Your task to perform on an android device: check android version Image 0: 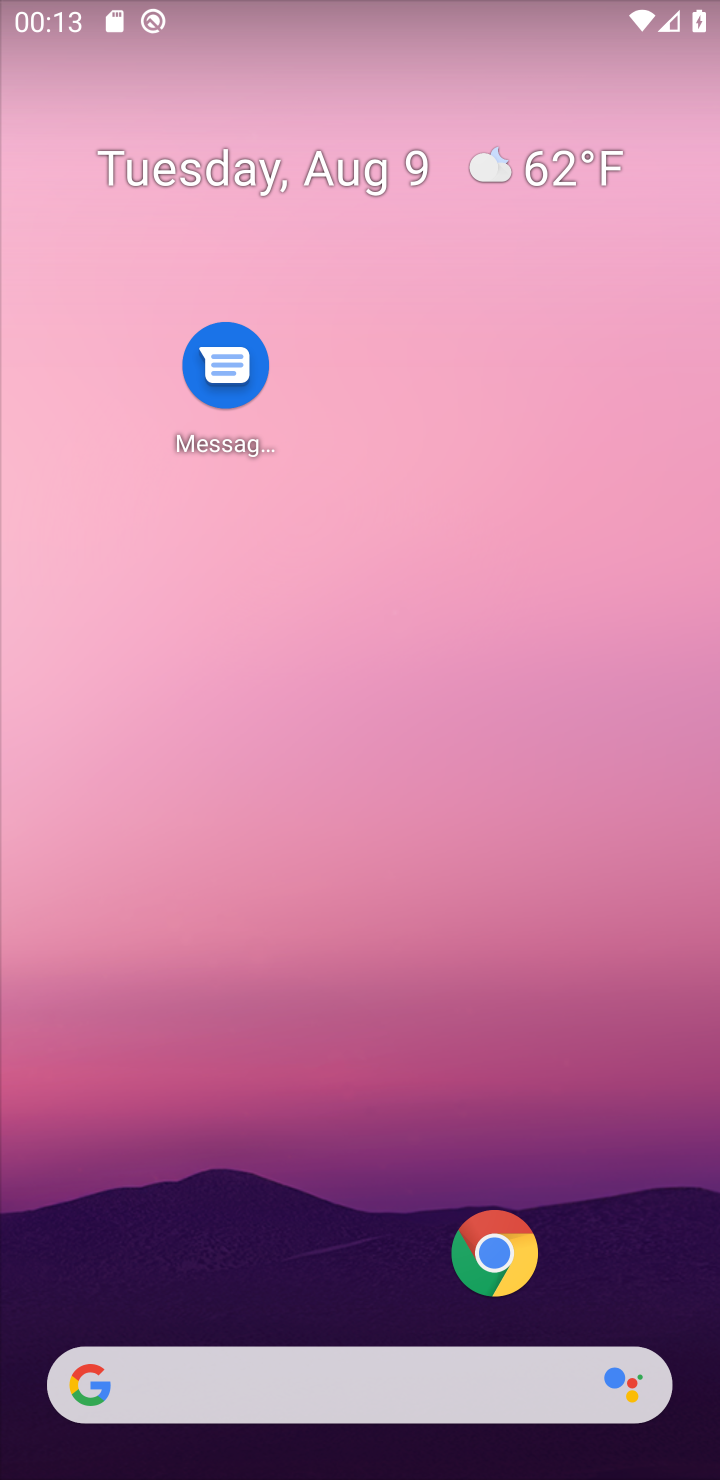
Step 0: drag from (474, 1220) to (485, 93)
Your task to perform on an android device: check android version Image 1: 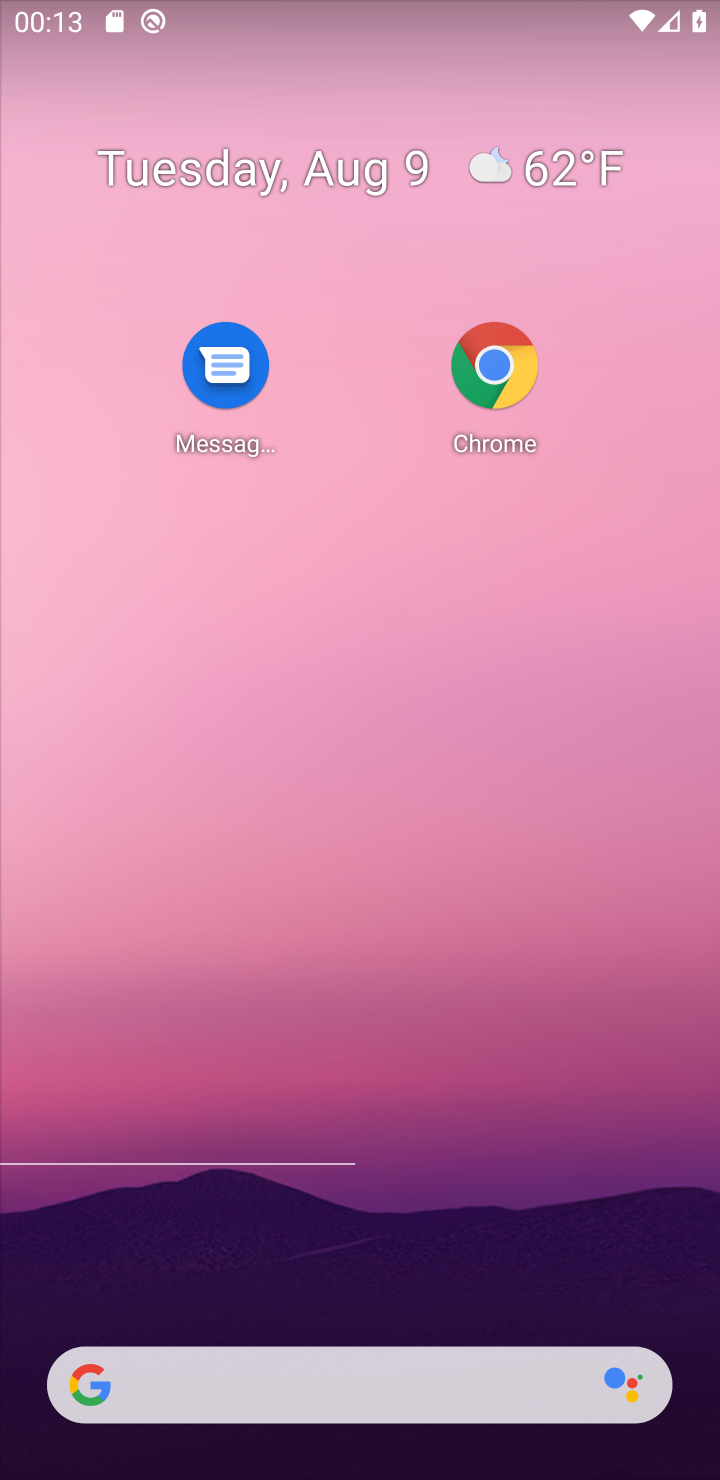
Step 1: drag from (330, 716) to (427, 64)
Your task to perform on an android device: check android version Image 2: 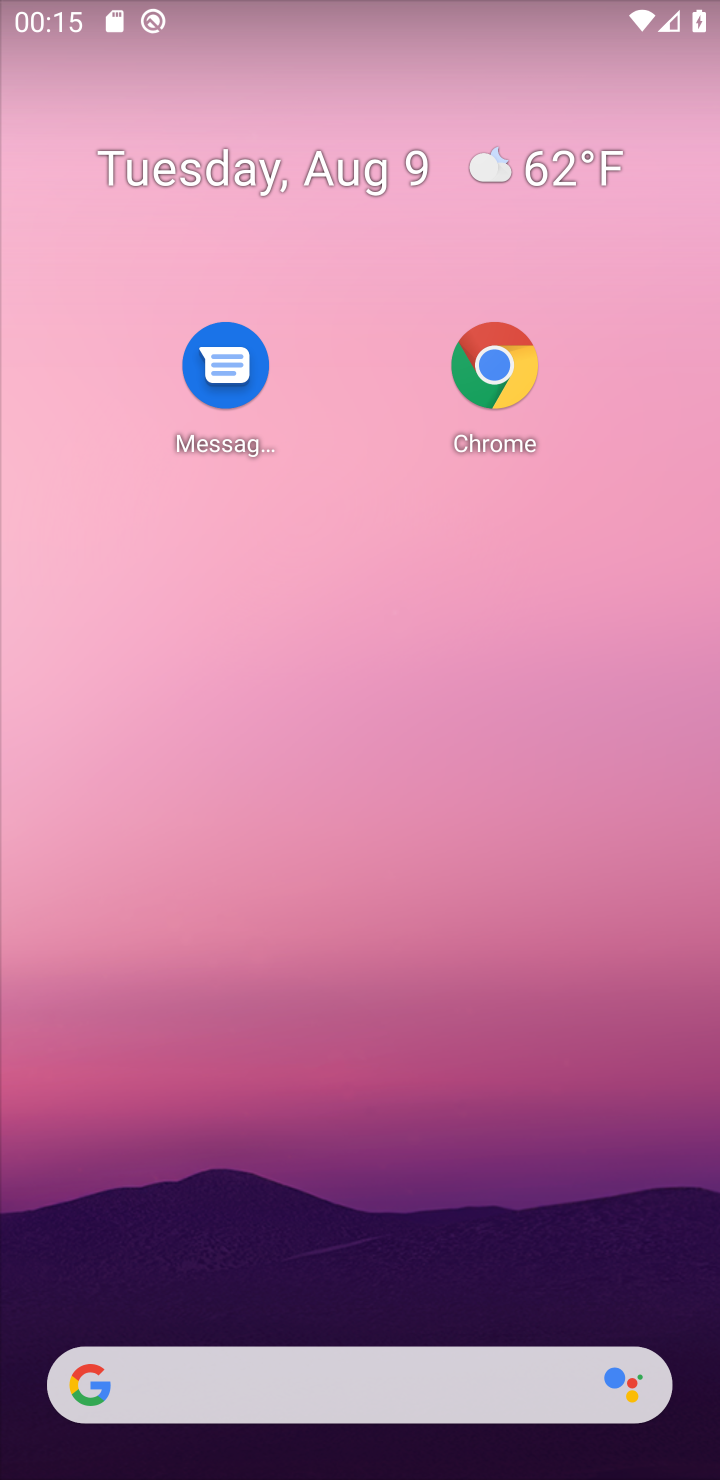
Step 2: drag from (262, 1405) to (570, 169)
Your task to perform on an android device: check android version Image 3: 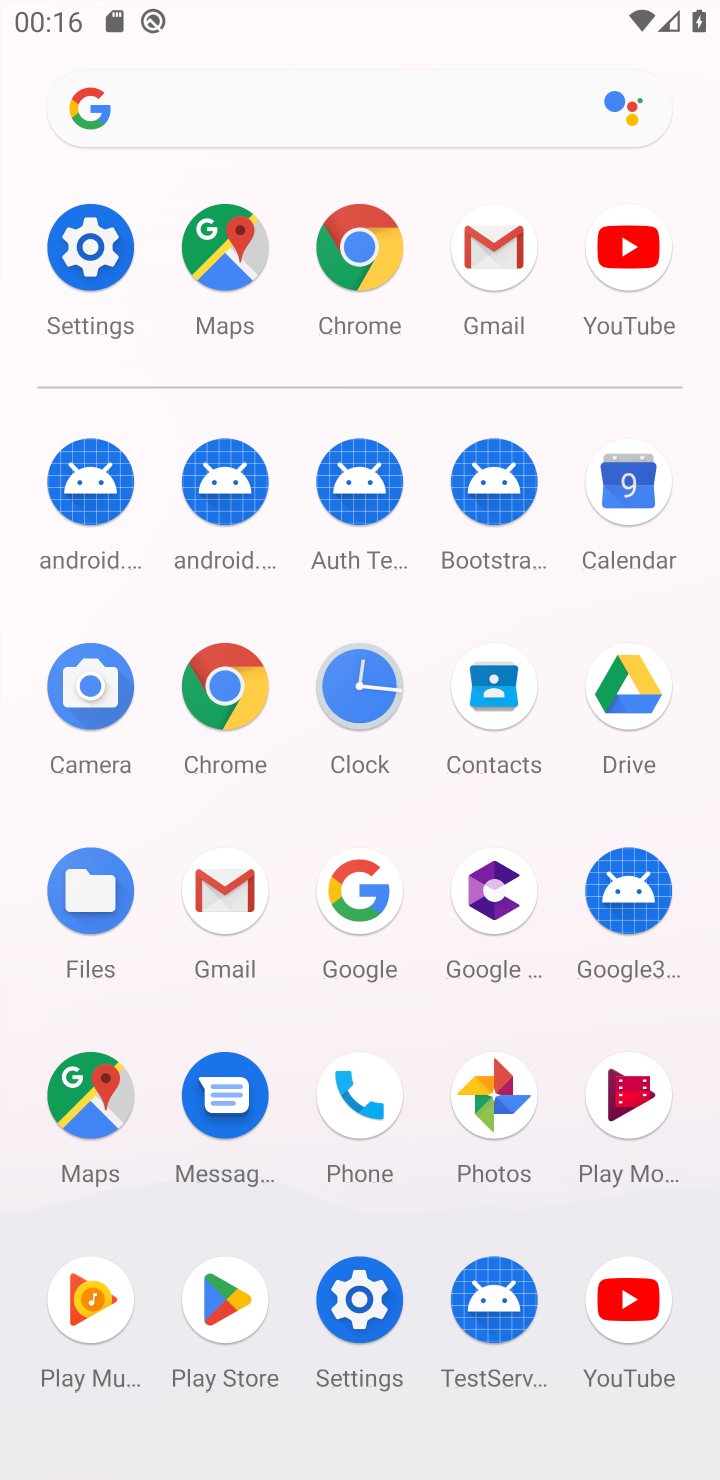
Step 3: click (81, 250)
Your task to perform on an android device: check android version Image 4: 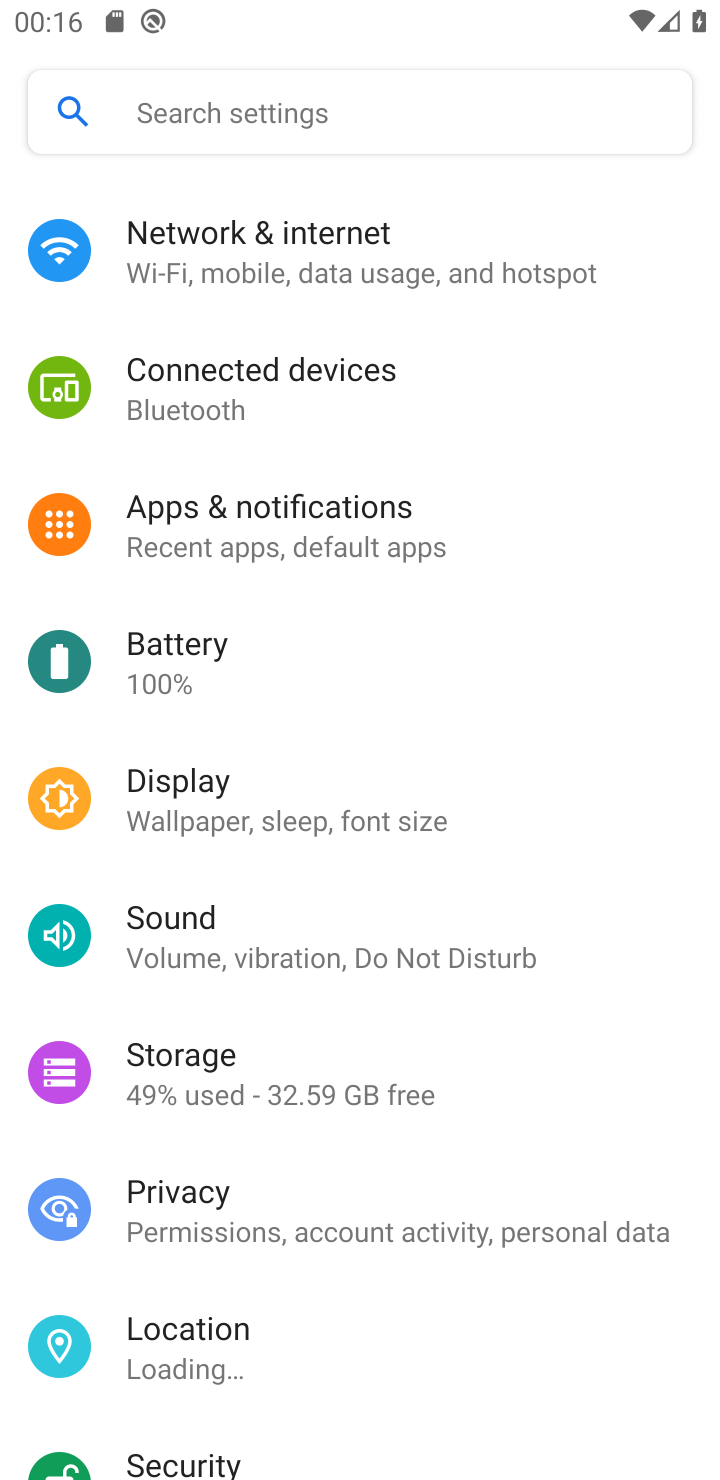
Step 4: drag from (345, 1365) to (417, 260)
Your task to perform on an android device: check android version Image 5: 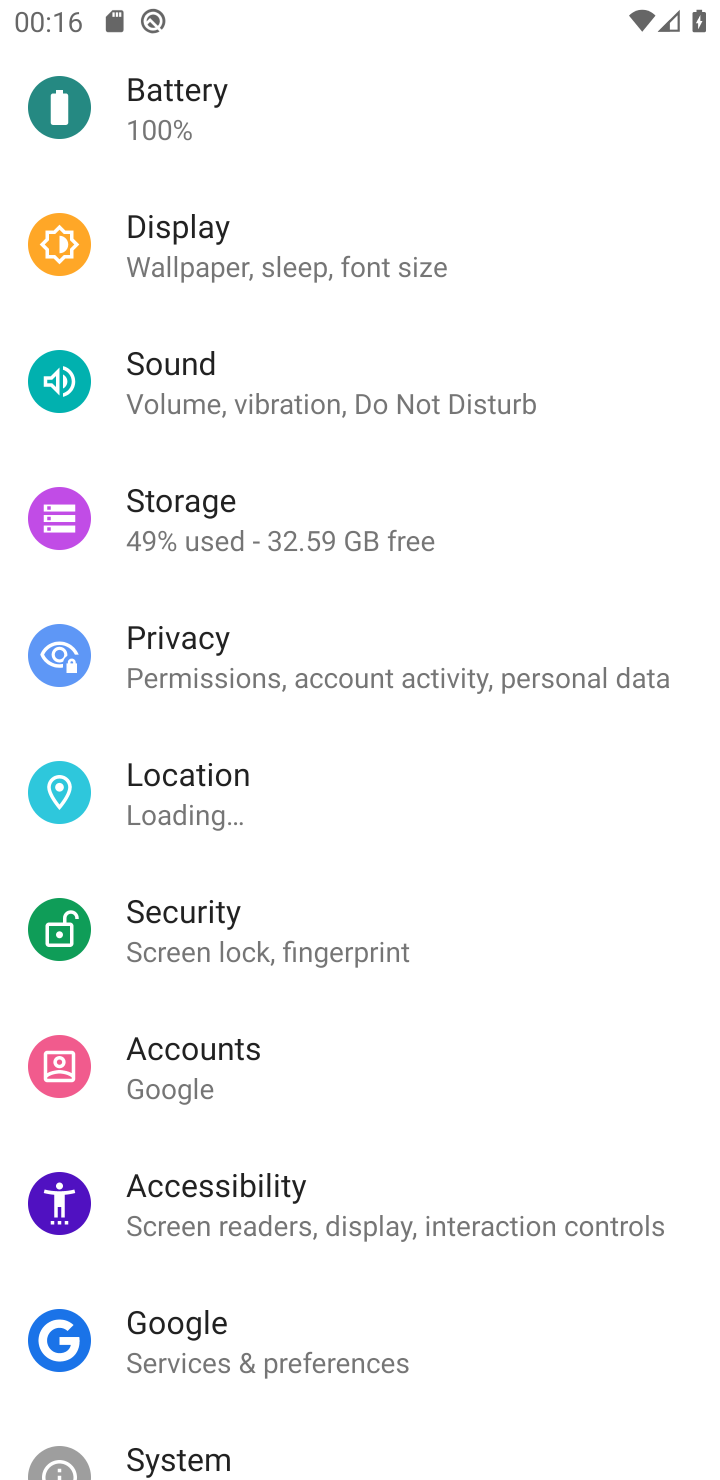
Step 5: drag from (292, 1277) to (392, 360)
Your task to perform on an android device: check android version Image 6: 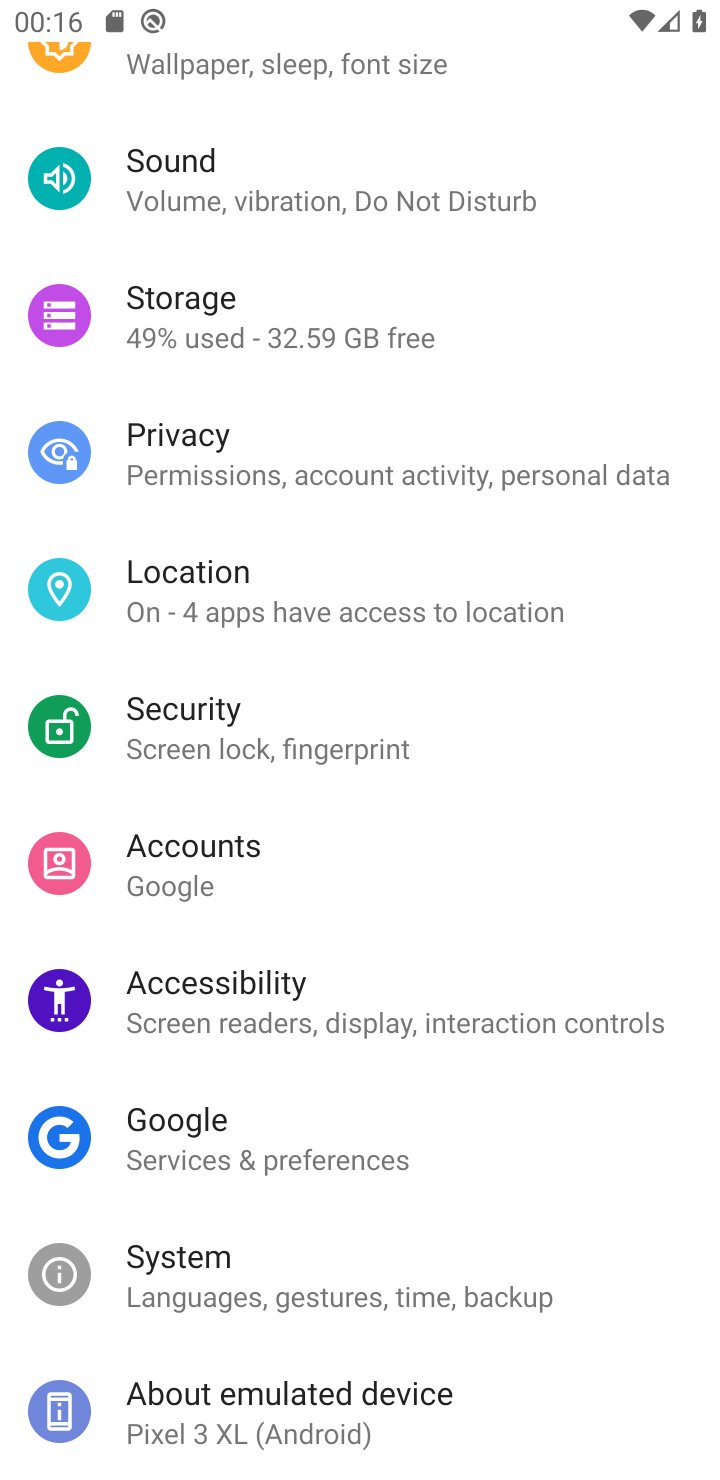
Step 6: click (268, 1381)
Your task to perform on an android device: check android version Image 7: 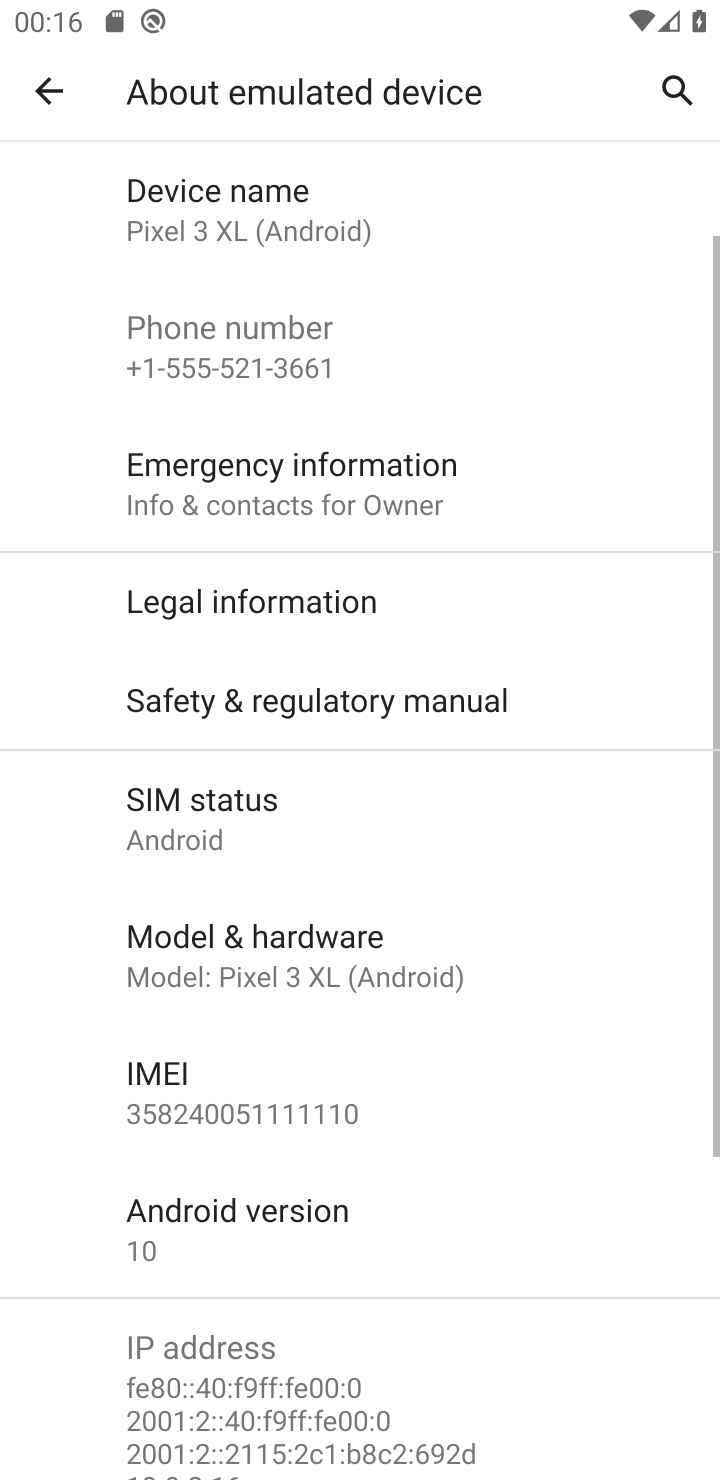
Step 7: task complete